Your task to perform on an android device: Search for the best way to make a resume. Image 0: 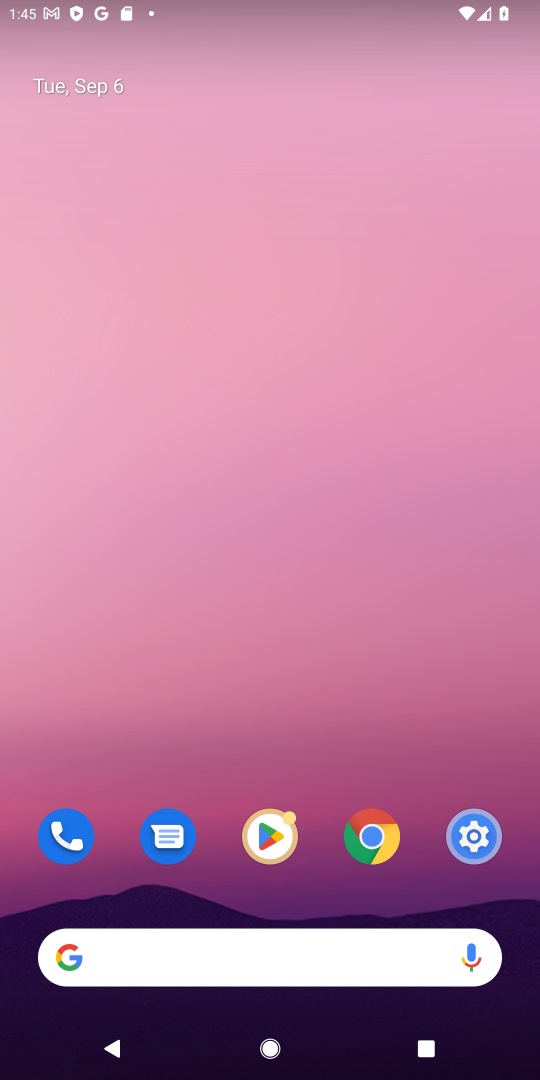
Step 0: click (255, 960)
Your task to perform on an android device: Search for the best way to make a resume. Image 1: 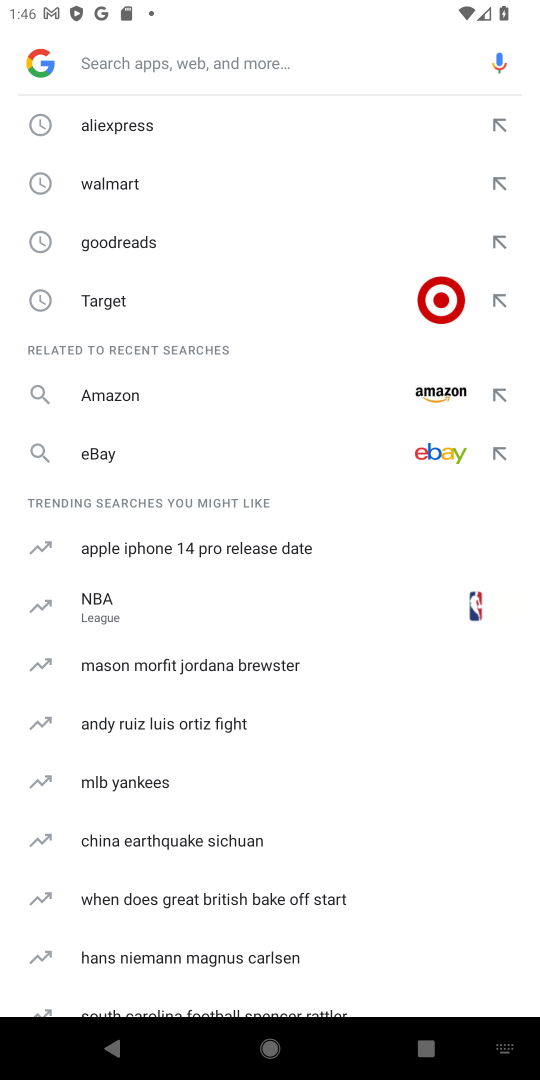
Step 1: type "best way to make a resume"
Your task to perform on an android device: Search for the best way to make a resume. Image 2: 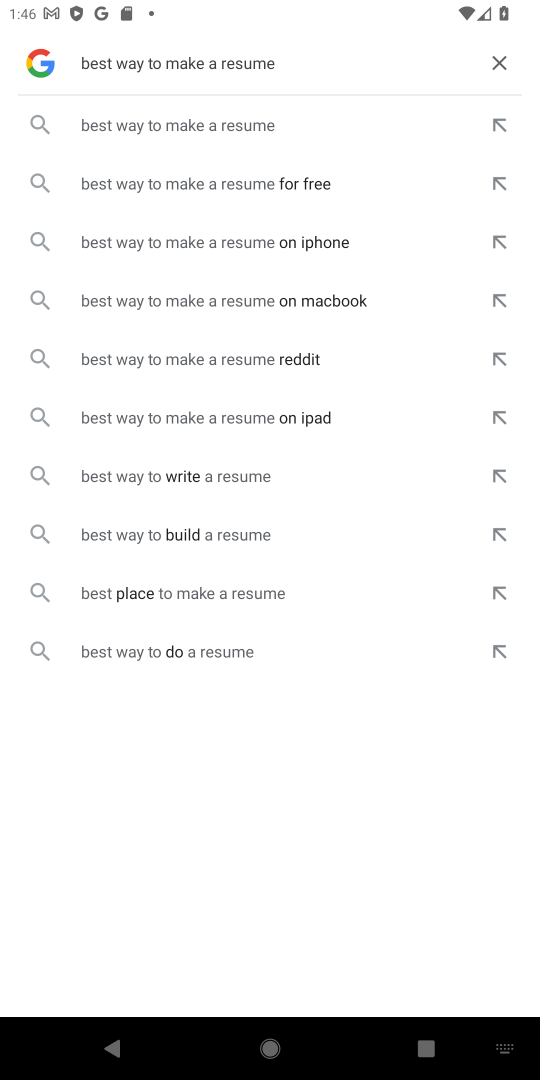
Step 2: click (507, 115)
Your task to perform on an android device: Search for the best way to make a resume. Image 3: 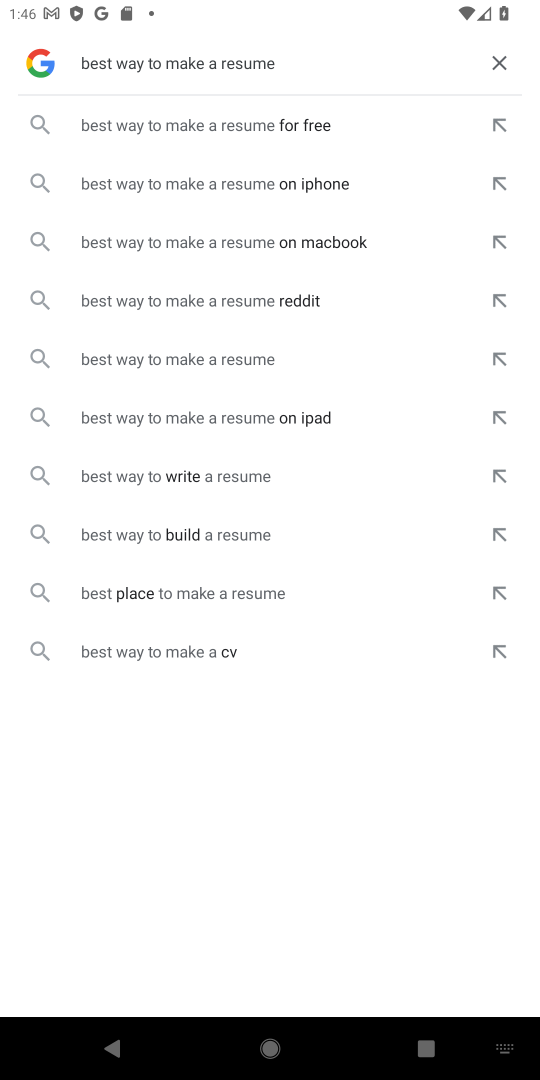
Step 3: click (328, 41)
Your task to perform on an android device: Search for the best way to make a resume. Image 4: 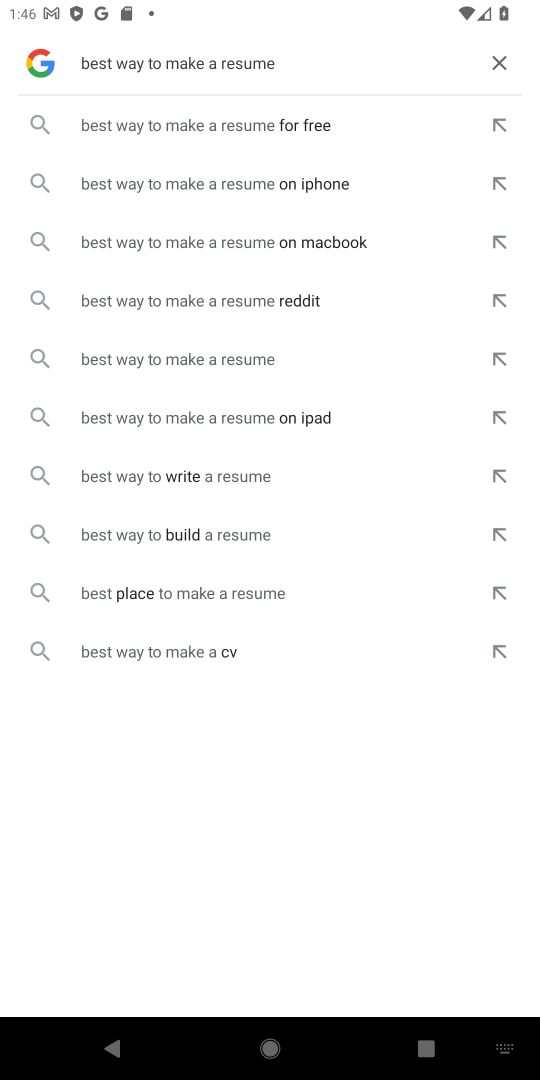
Step 4: click (188, 355)
Your task to perform on an android device: Search for the best way to make a resume. Image 5: 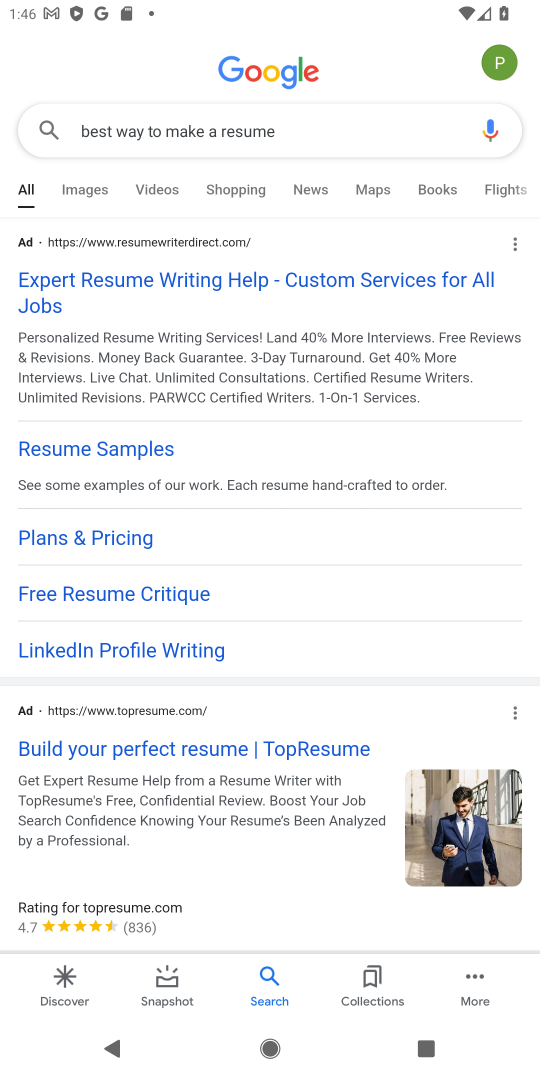
Step 5: task complete